Your task to perform on an android device: Check the news Image 0: 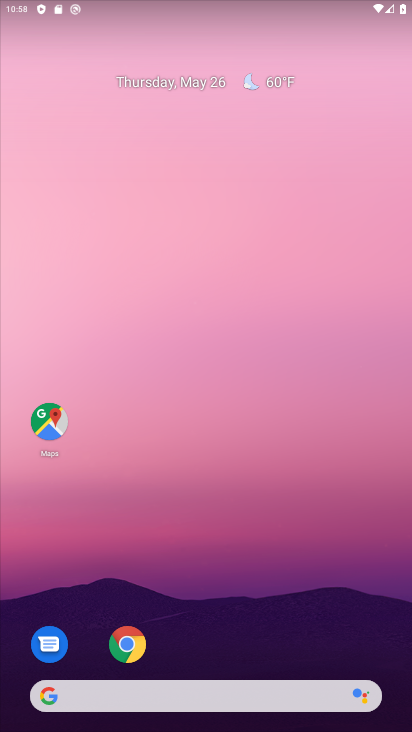
Step 0: drag from (0, 301) to (410, 213)
Your task to perform on an android device: Check the news Image 1: 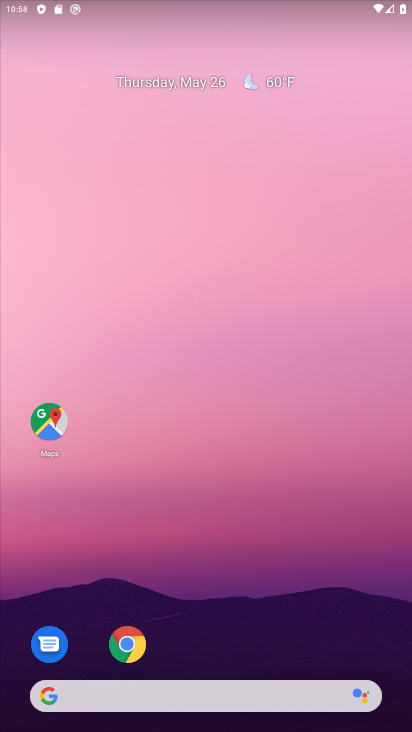
Step 1: task complete